Your task to perform on an android device: Open accessibility settings Image 0: 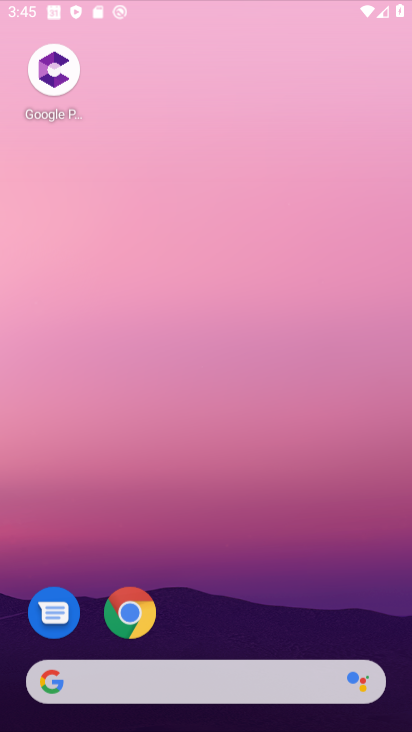
Step 0: drag from (141, 250) to (180, 158)
Your task to perform on an android device: Open accessibility settings Image 1: 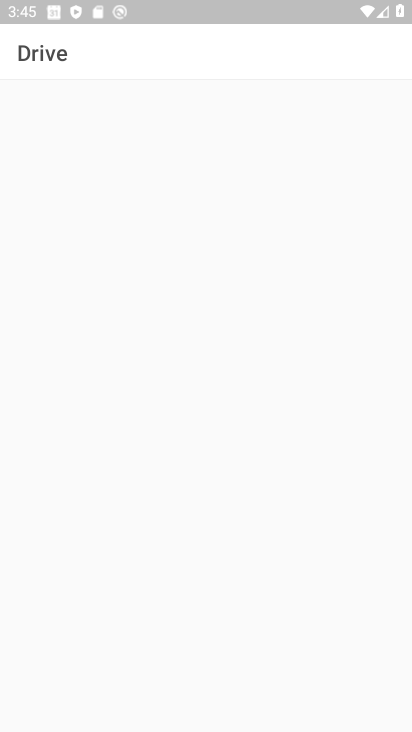
Step 1: press back button
Your task to perform on an android device: Open accessibility settings Image 2: 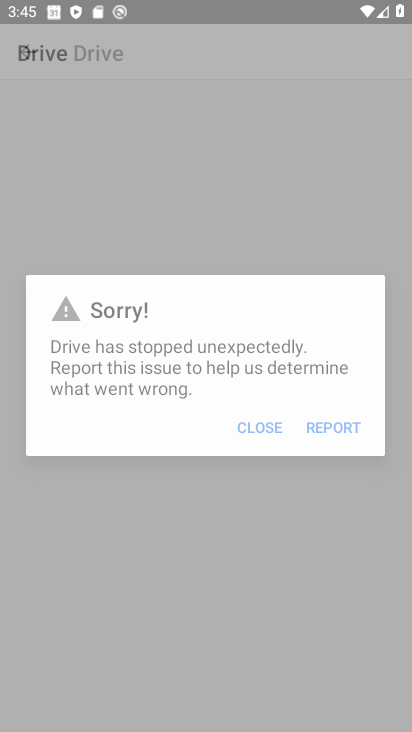
Step 2: press home button
Your task to perform on an android device: Open accessibility settings Image 3: 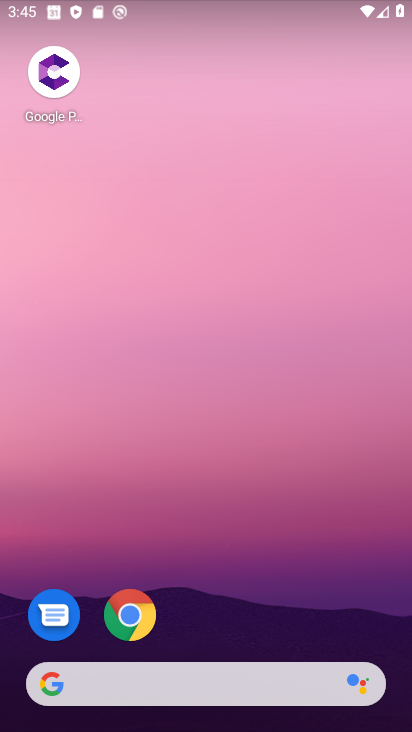
Step 3: drag from (264, 498) to (135, 48)
Your task to perform on an android device: Open accessibility settings Image 4: 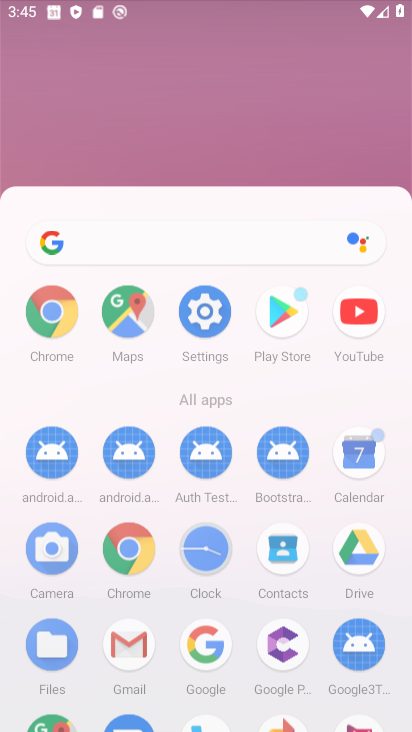
Step 4: drag from (176, 384) to (108, 37)
Your task to perform on an android device: Open accessibility settings Image 5: 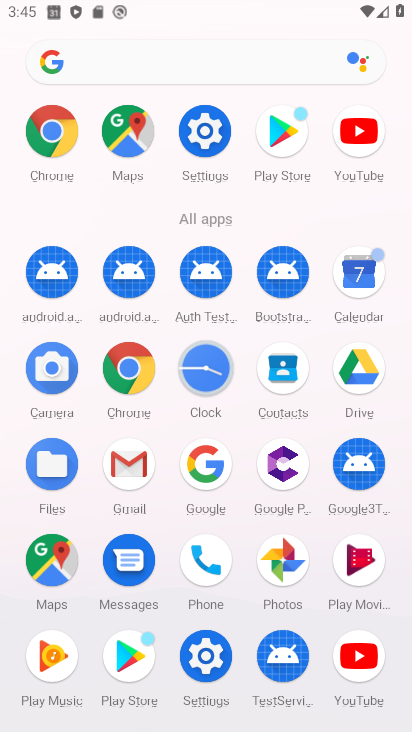
Step 5: drag from (151, 390) to (90, 6)
Your task to perform on an android device: Open accessibility settings Image 6: 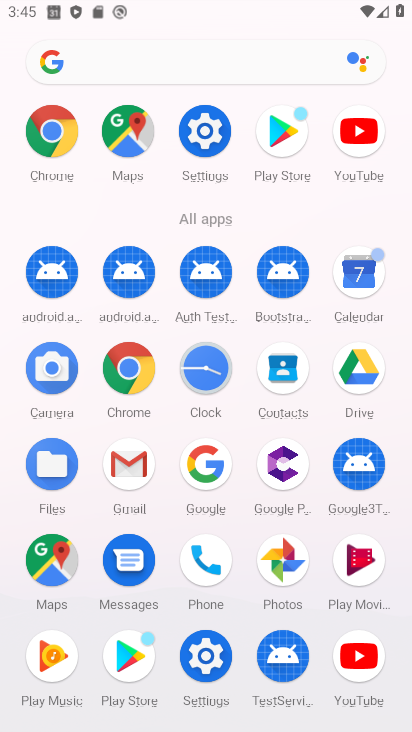
Step 6: click (207, 134)
Your task to perform on an android device: Open accessibility settings Image 7: 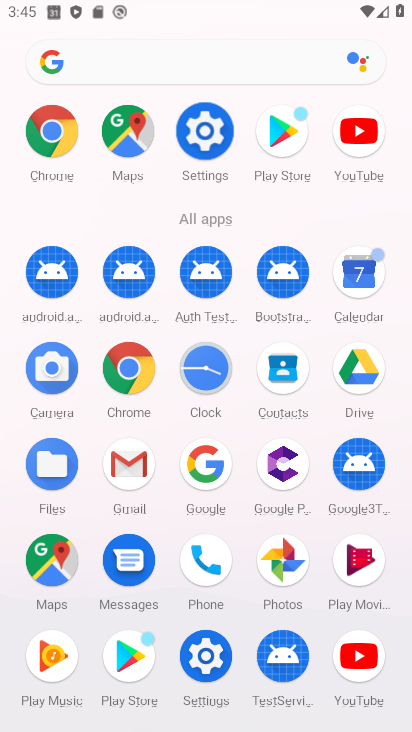
Step 7: click (207, 133)
Your task to perform on an android device: Open accessibility settings Image 8: 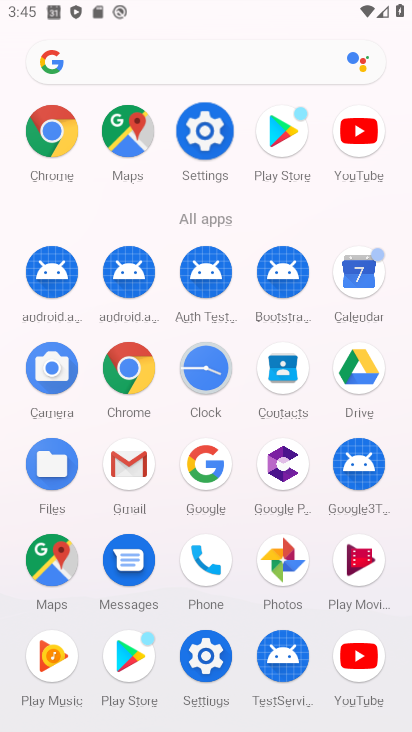
Step 8: click (207, 133)
Your task to perform on an android device: Open accessibility settings Image 9: 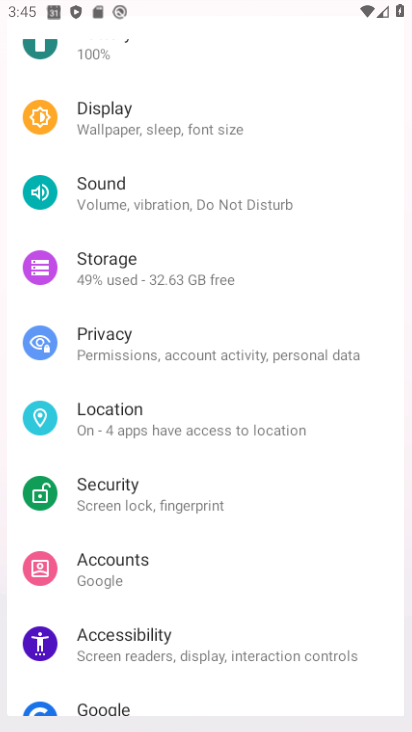
Step 9: click (207, 133)
Your task to perform on an android device: Open accessibility settings Image 10: 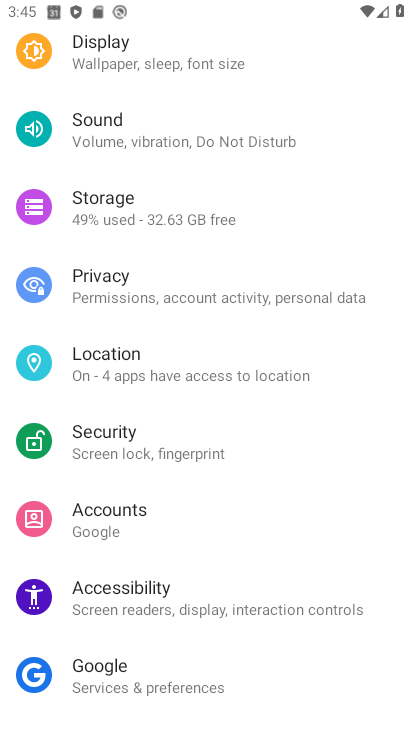
Step 10: click (205, 136)
Your task to perform on an android device: Open accessibility settings Image 11: 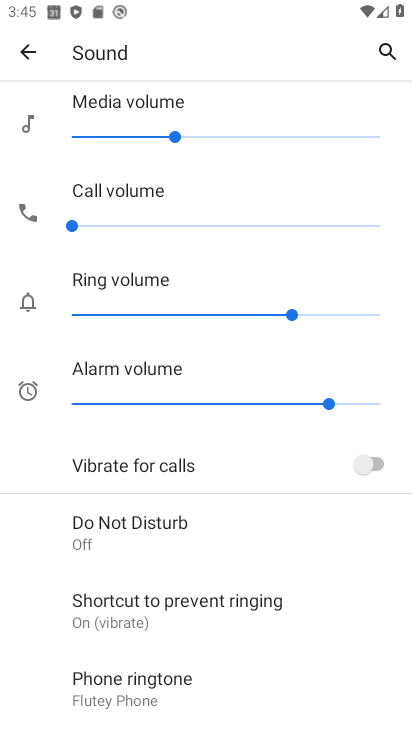
Step 11: click (108, 591)
Your task to perform on an android device: Open accessibility settings Image 12: 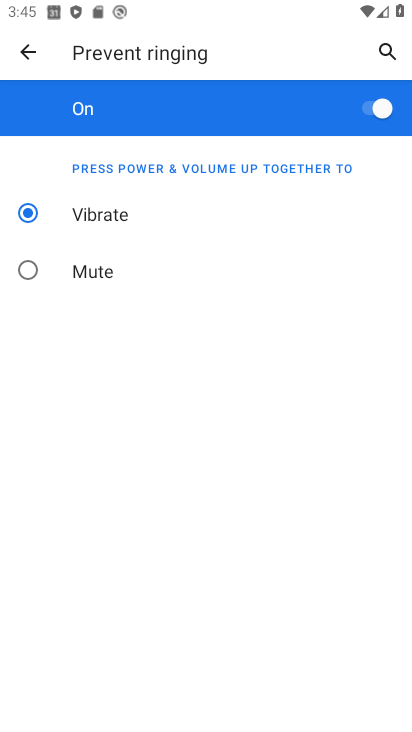
Step 12: click (26, 53)
Your task to perform on an android device: Open accessibility settings Image 13: 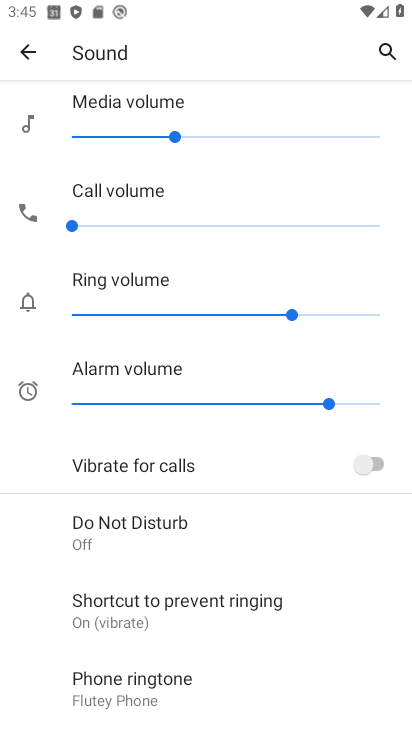
Step 13: click (24, 51)
Your task to perform on an android device: Open accessibility settings Image 14: 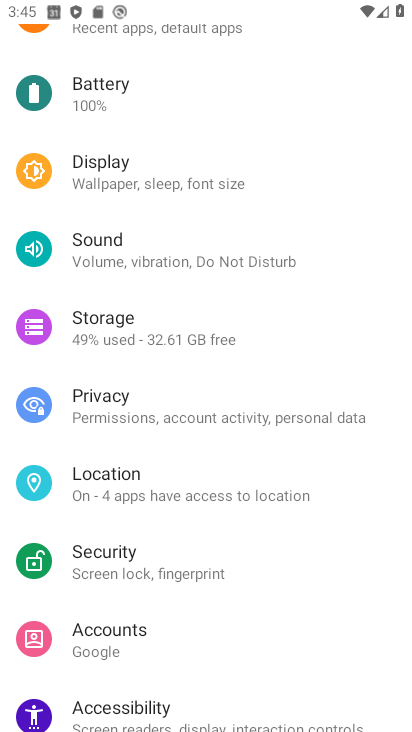
Step 14: drag from (130, 462) to (119, 196)
Your task to perform on an android device: Open accessibility settings Image 15: 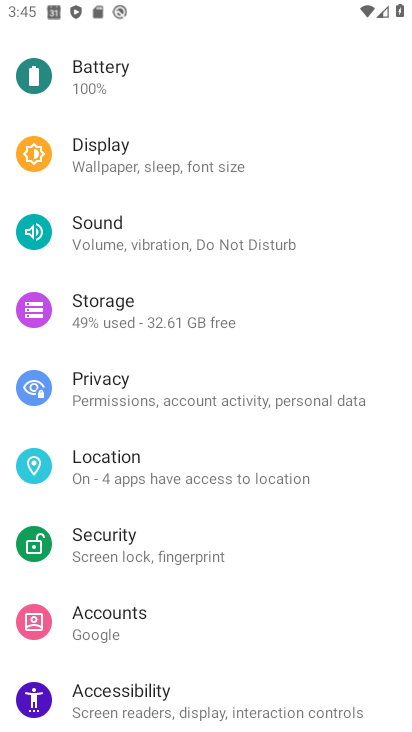
Step 15: drag from (185, 467) to (153, 310)
Your task to perform on an android device: Open accessibility settings Image 16: 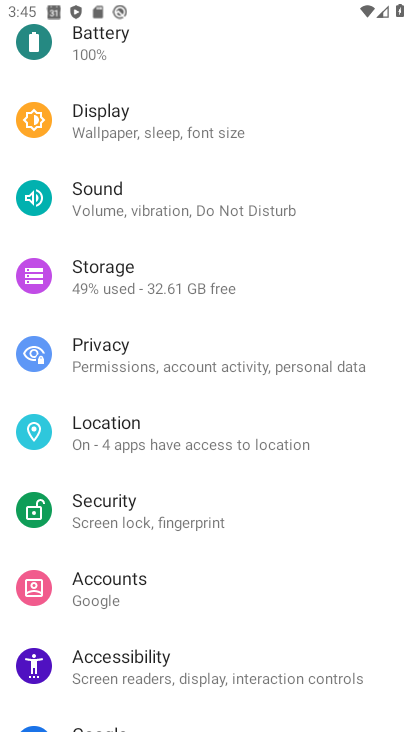
Step 16: click (119, 662)
Your task to perform on an android device: Open accessibility settings Image 17: 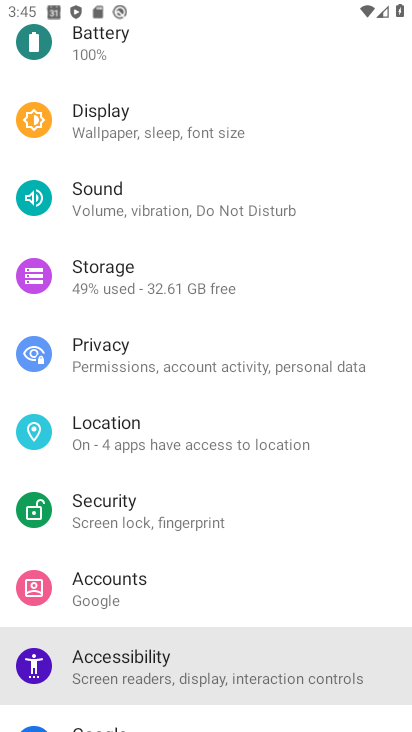
Step 17: click (119, 662)
Your task to perform on an android device: Open accessibility settings Image 18: 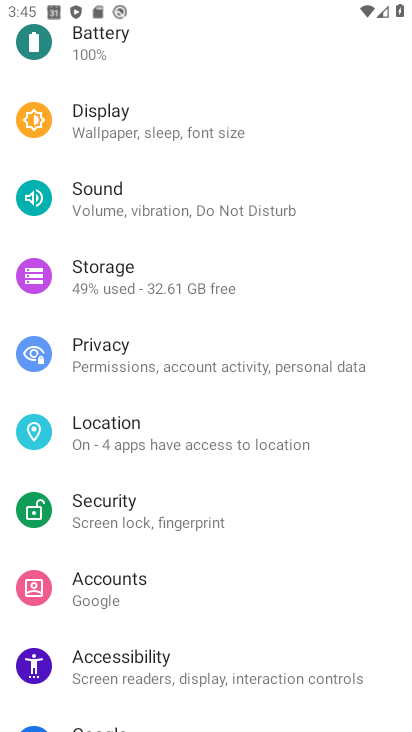
Step 18: click (119, 662)
Your task to perform on an android device: Open accessibility settings Image 19: 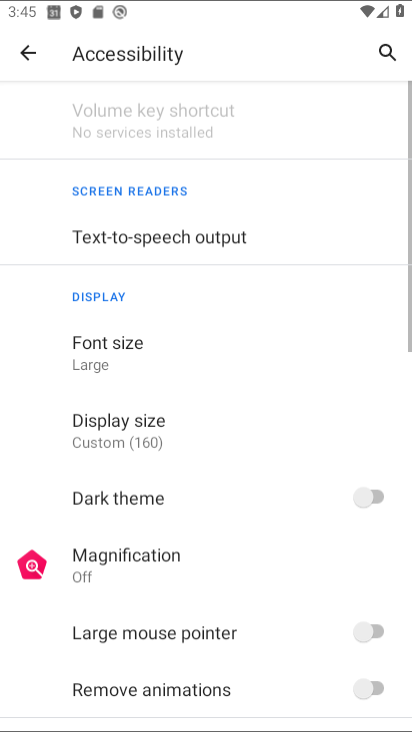
Step 19: click (120, 663)
Your task to perform on an android device: Open accessibility settings Image 20: 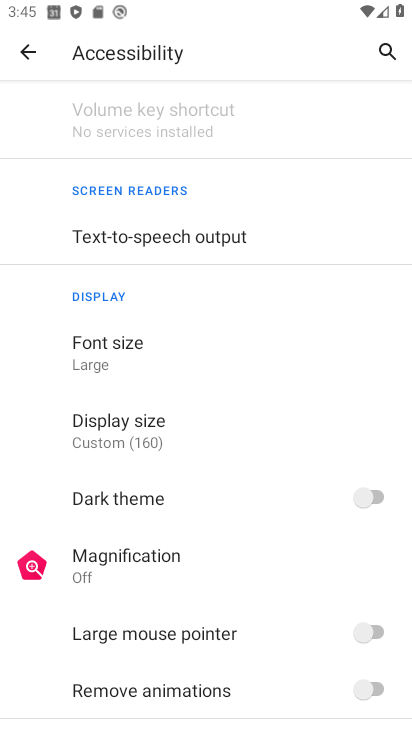
Step 20: task complete